Your task to perform on an android device: read, delete, or share a saved page in the chrome app Image 0: 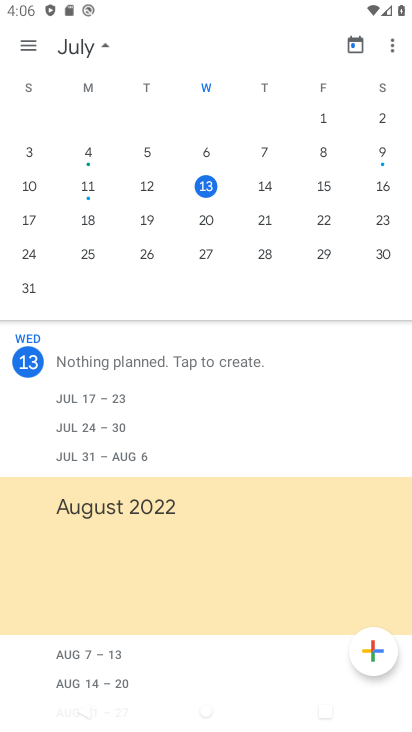
Step 0: press home button
Your task to perform on an android device: read, delete, or share a saved page in the chrome app Image 1: 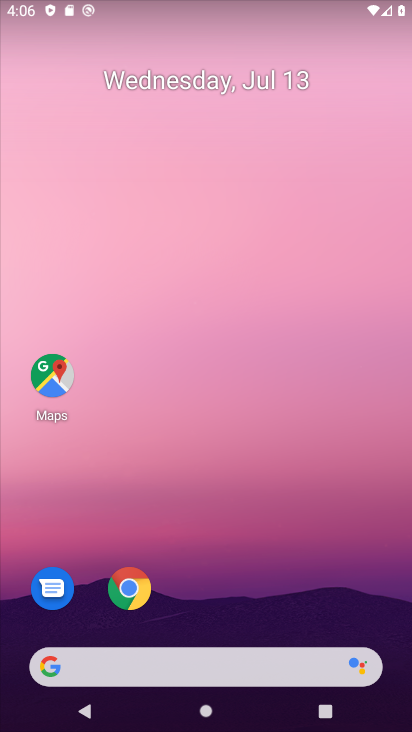
Step 1: click (127, 596)
Your task to perform on an android device: read, delete, or share a saved page in the chrome app Image 2: 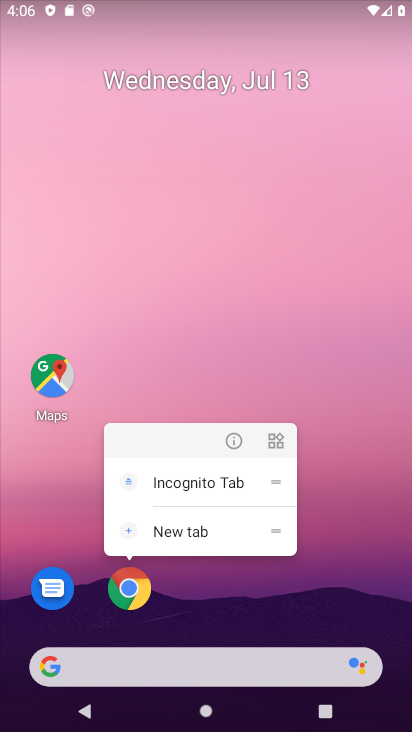
Step 2: task complete